Your task to perform on an android device: delete browsing data in the chrome app Image 0: 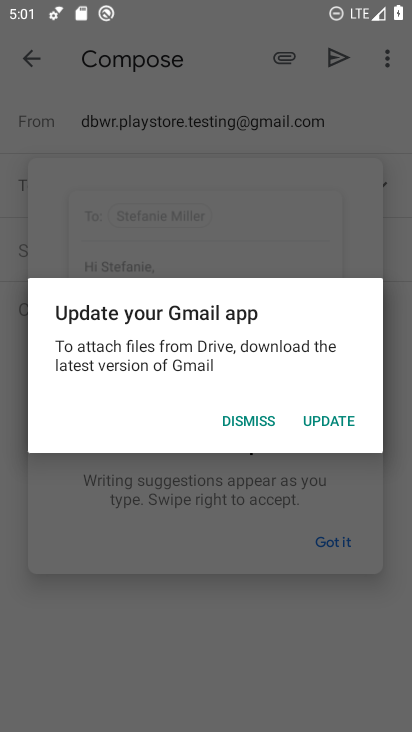
Step 0: press home button
Your task to perform on an android device: delete browsing data in the chrome app Image 1: 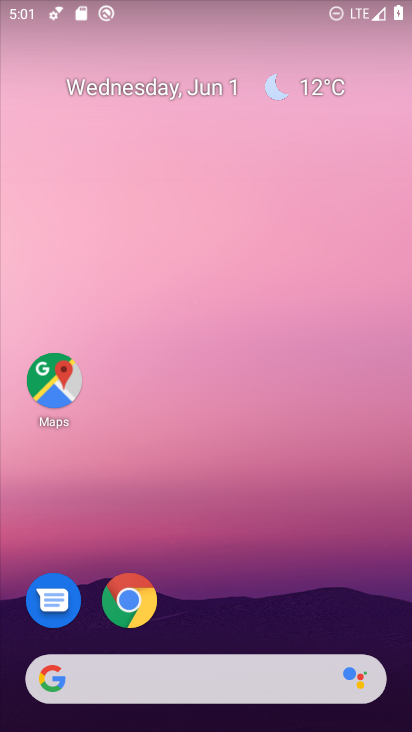
Step 1: click (129, 601)
Your task to perform on an android device: delete browsing data in the chrome app Image 2: 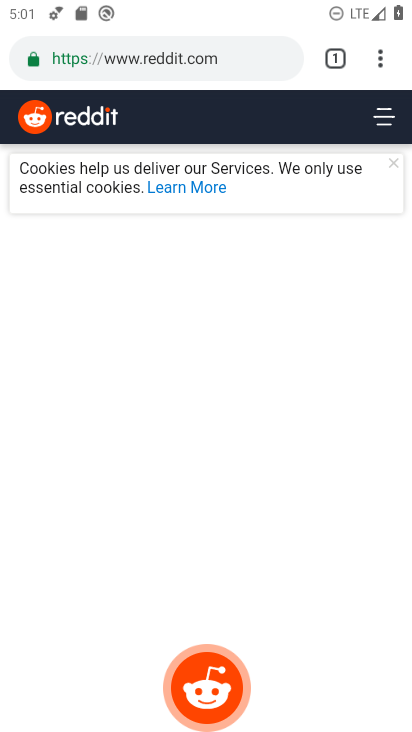
Step 2: click (381, 61)
Your task to perform on an android device: delete browsing data in the chrome app Image 3: 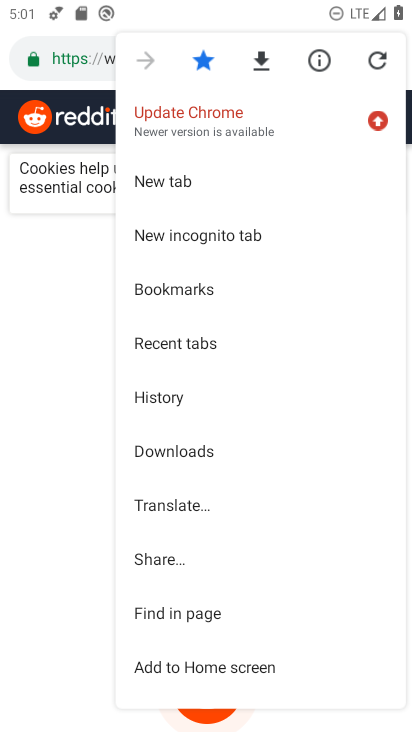
Step 3: click (176, 399)
Your task to perform on an android device: delete browsing data in the chrome app Image 4: 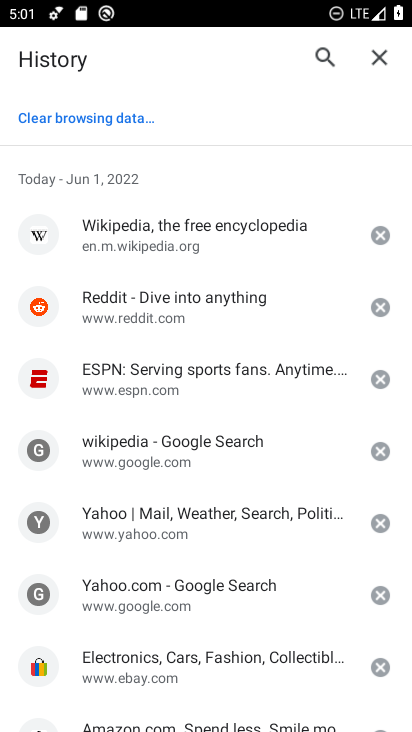
Step 4: click (87, 120)
Your task to perform on an android device: delete browsing data in the chrome app Image 5: 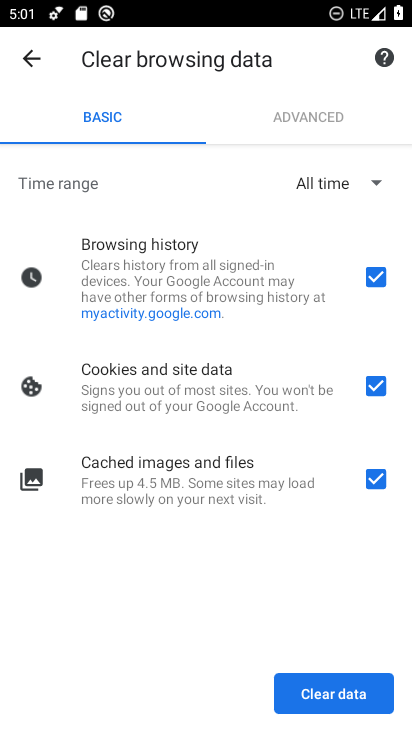
Step 5: click (371, 381)
Your task to perform on an android device: delete browsing data in the chrome app Image 6: 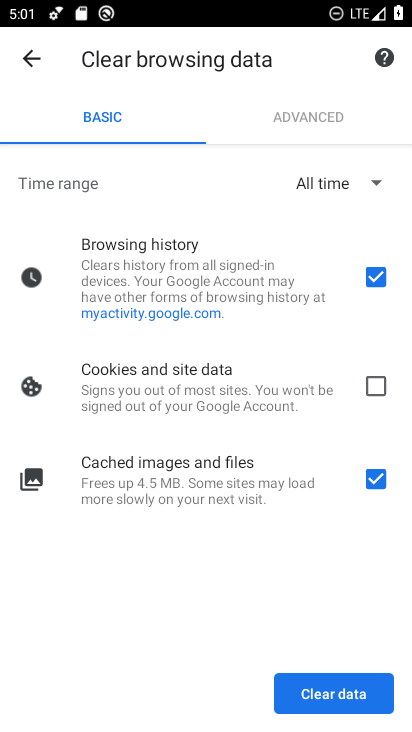
Step 6: click (374, 478)
Your task to perform on an android device: delete browsing data in the chrome app Image 7: 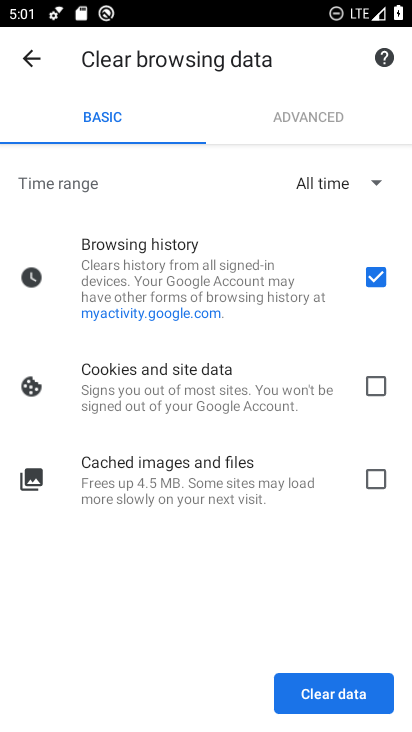
Step 7: click (339, 693)
Your task to perform on an android device: delete browsing data in the chrome app Image 8: 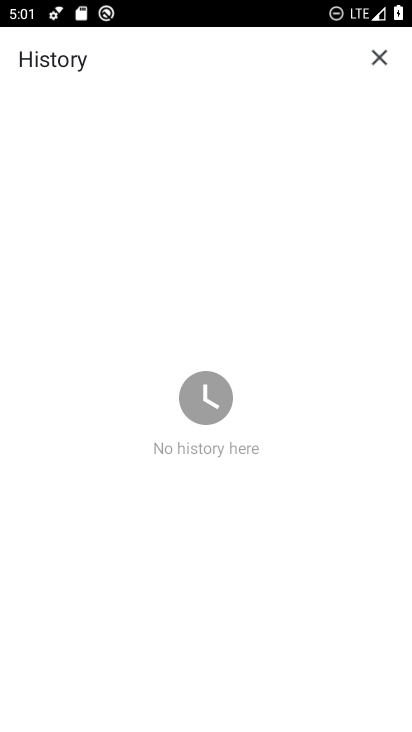
Step 8: task complete